Your task to perform on an android device: Open Chrome and go to settings Image 0: 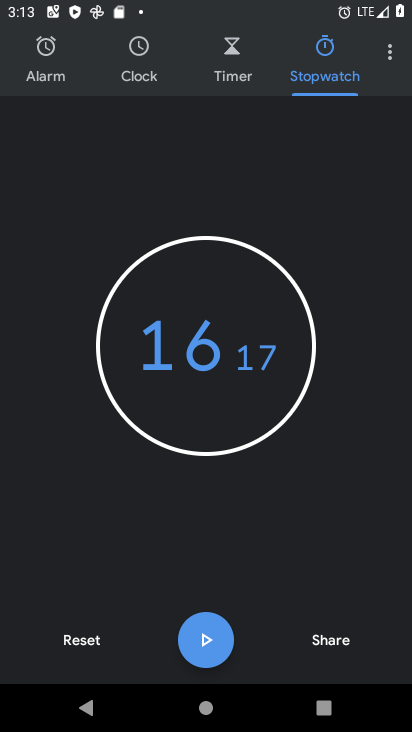
Step 0: press home button
Your task to perform on an android device: Open Chrome and go to settings Image 1: 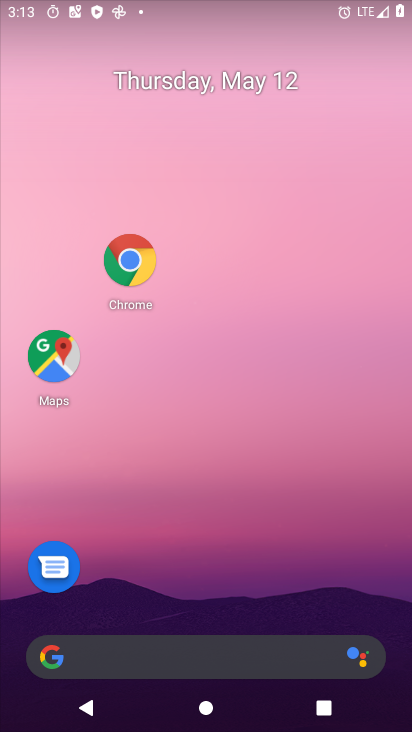
Step 1: click (123, 261)
Your task to perform on an android device: Open Chrome and go to settings Image 2: 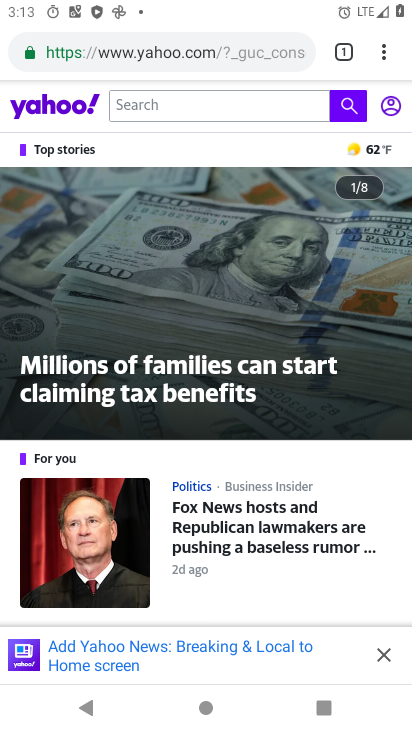
Step 2: click (384, 52)
Your task to perform on an android device: Open Chrome and go to settings Image 3: 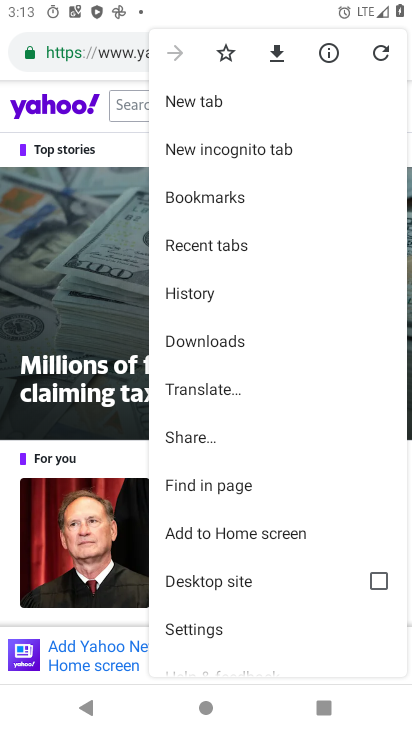
Step 3: click (195, 634)
Your task to perform on an android device: Open Chrome and go to settings Image 4: 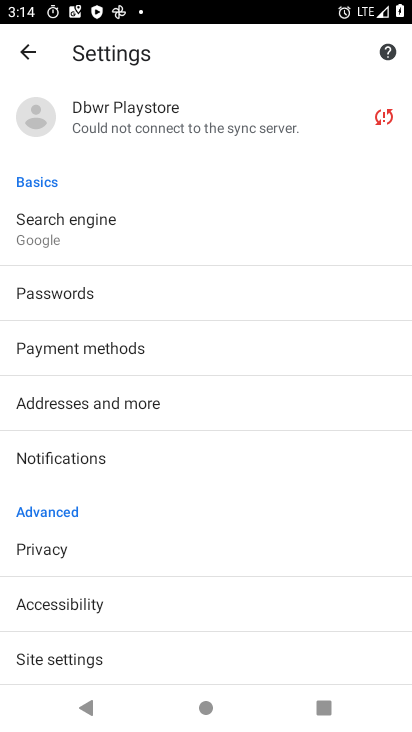
Step 4: task complete